Your task to perform on an android device: What's the weather going to be this weekend? Image 0: 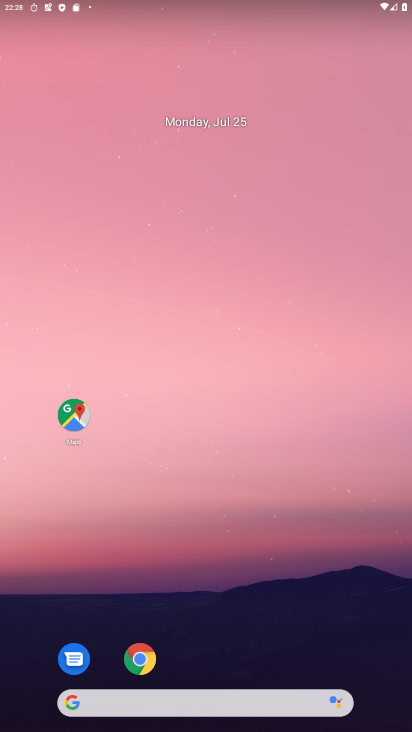
Step 0: drag from (191, 657) to (197, 184)
Your task to perform on an android device: What's the weather going to be this weekend? Image 1: 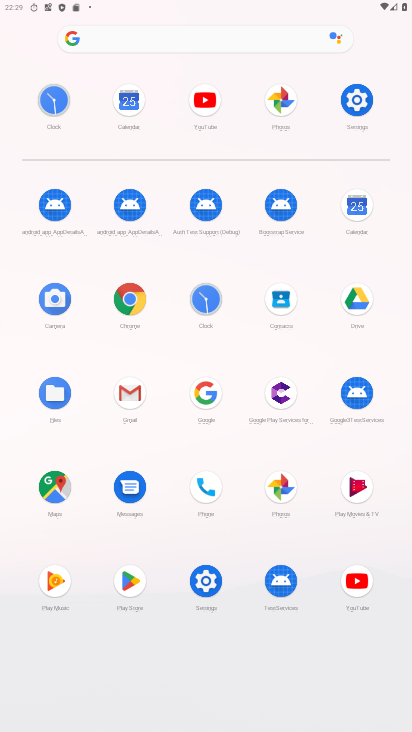
Step 1: click (216, 389)
Your task to perform on an android device: What's the weather going to be this weekend? Image 2: 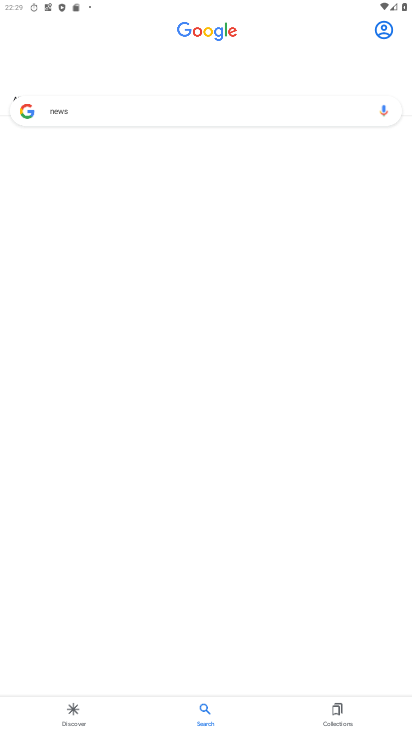
Step 2: click (105, 114)
Your task to perform on an android device: What's the weather going to be this weekend? Image 3: 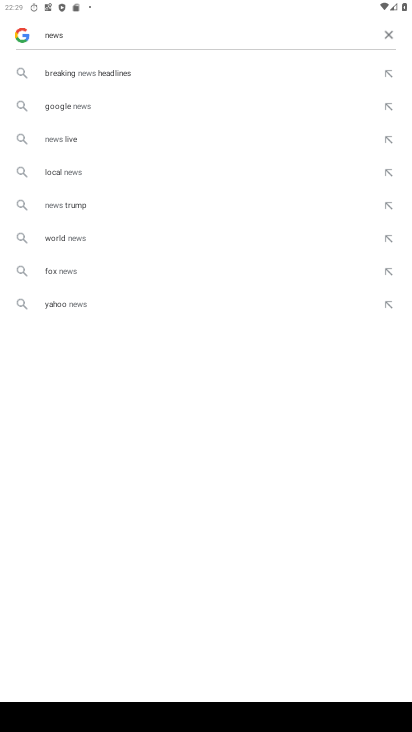
Step 3: click (396, 35)
Your task to perform on an android device: What's the weather going to be this weekend? Image 4: 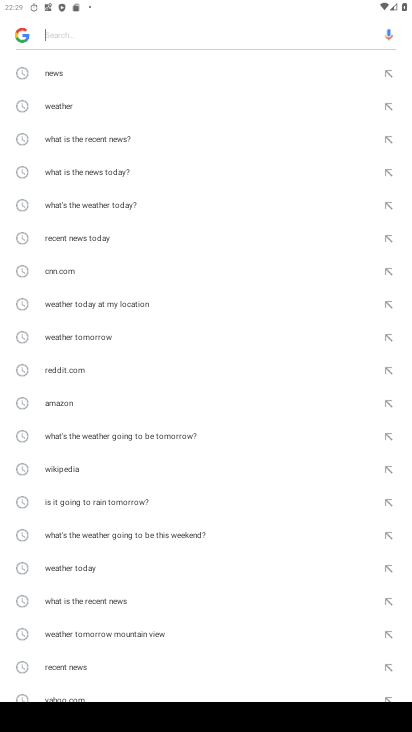
Step 4: click (85, 106)
Your task to perform on an android device: What's the weather going to be this weekend? Image 5: 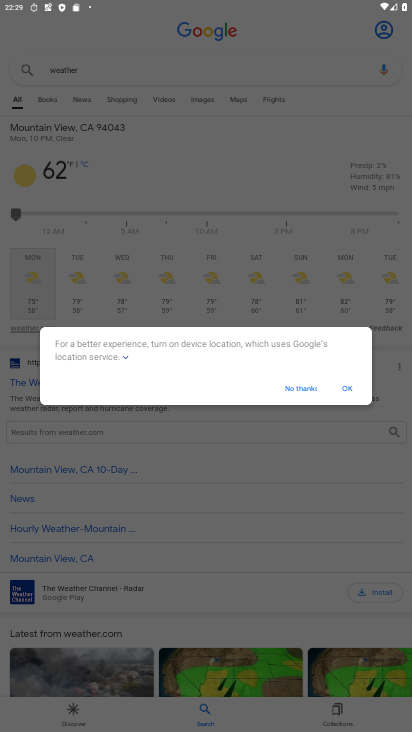
Step 5: click (351, 388)
Your task to perform on an android device: What's the weather going to be this weekend? Image 6: 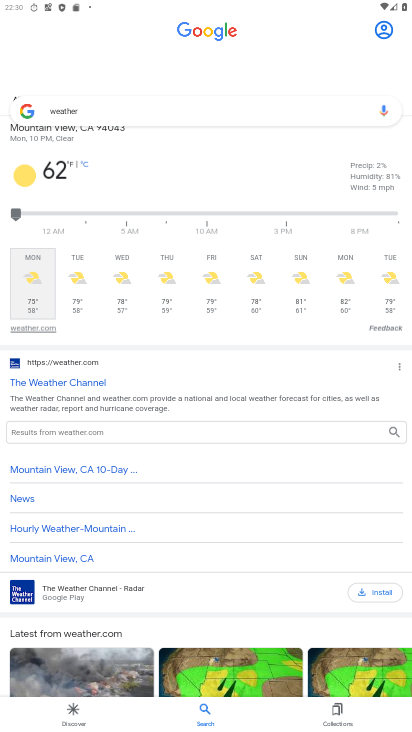
Step 6: task complete